Your task to perform on an android device: create a new album in the google photos Image 0: 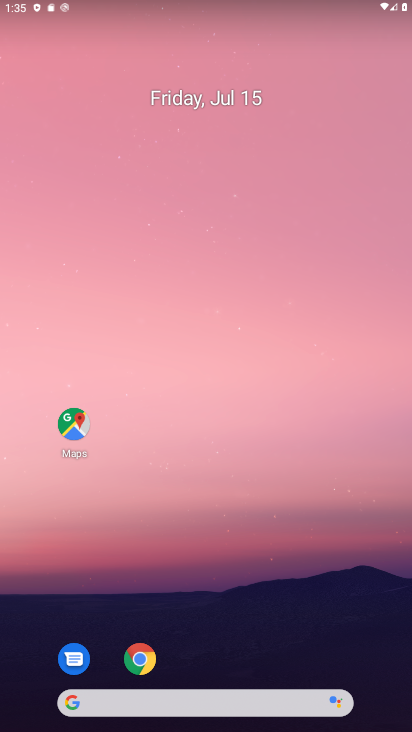
Step 0: drag from (247, 649) to (220, 200)
Your task to perform on an android device: create a new album in the google photos Image 1: 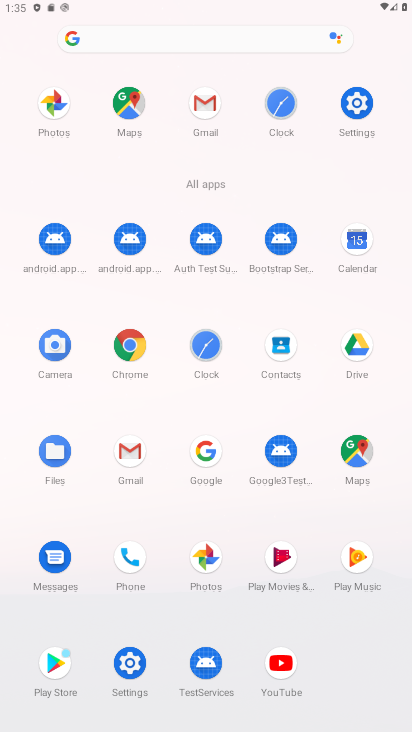
Step 1: click (201, 558)
Your task to perform on an android device: create a new album in the google photos Image 2: 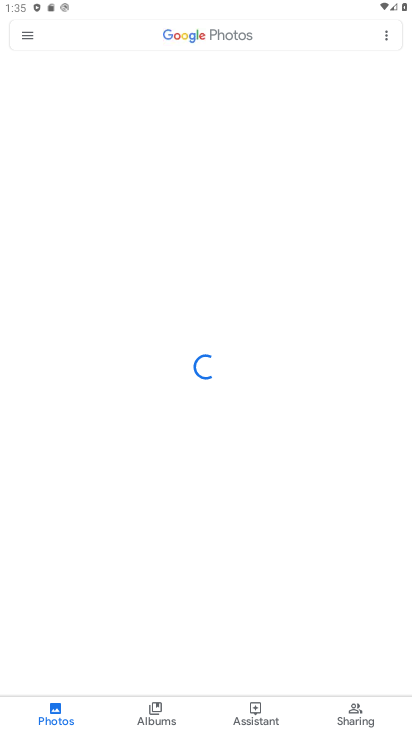
Step 2: click (158, 708)
Your task to perform on an android device: create a new album in the google photos Image 3: 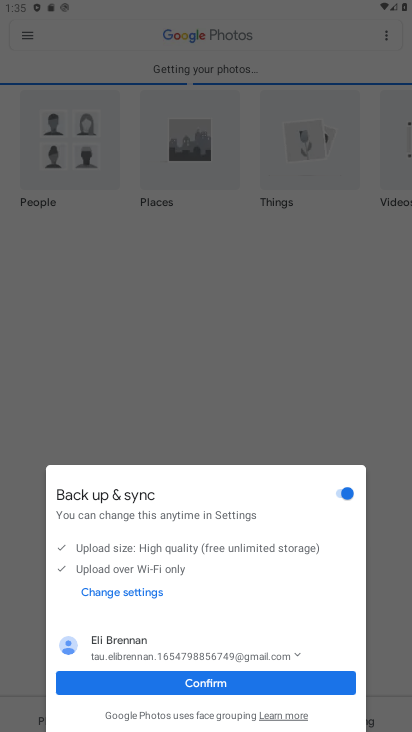
Step 3: click (221, 675)
Your task to perform on an android device: create a new album in the google photos Image 4: 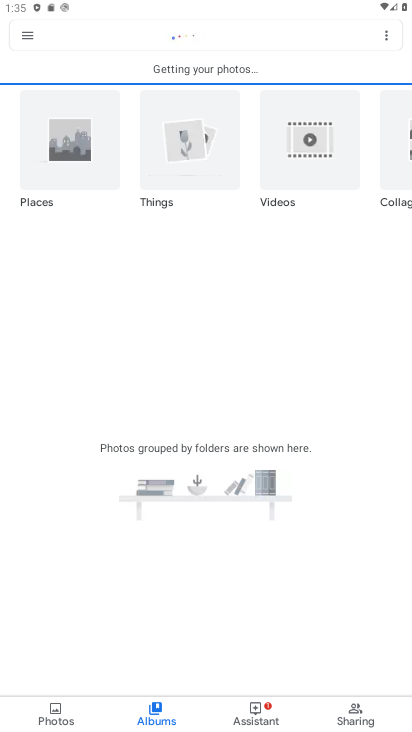
Step 4: click (62, 710)
Your task to perform on an android device: create a new album in the google photos Image 5: 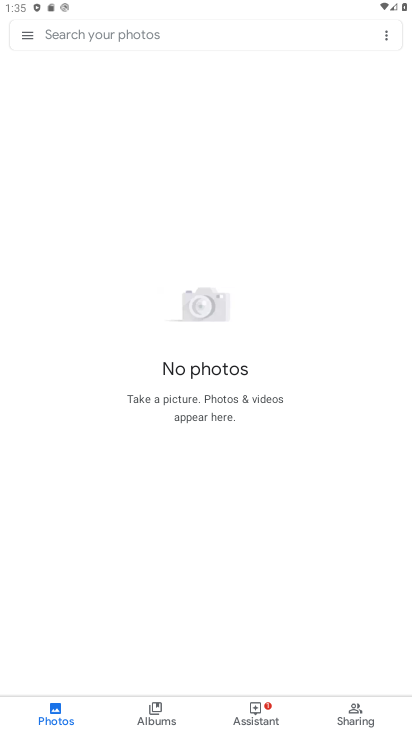
Step 5: task complete